Your task to perform on an android device: turn off picture-in-picture Image 0: 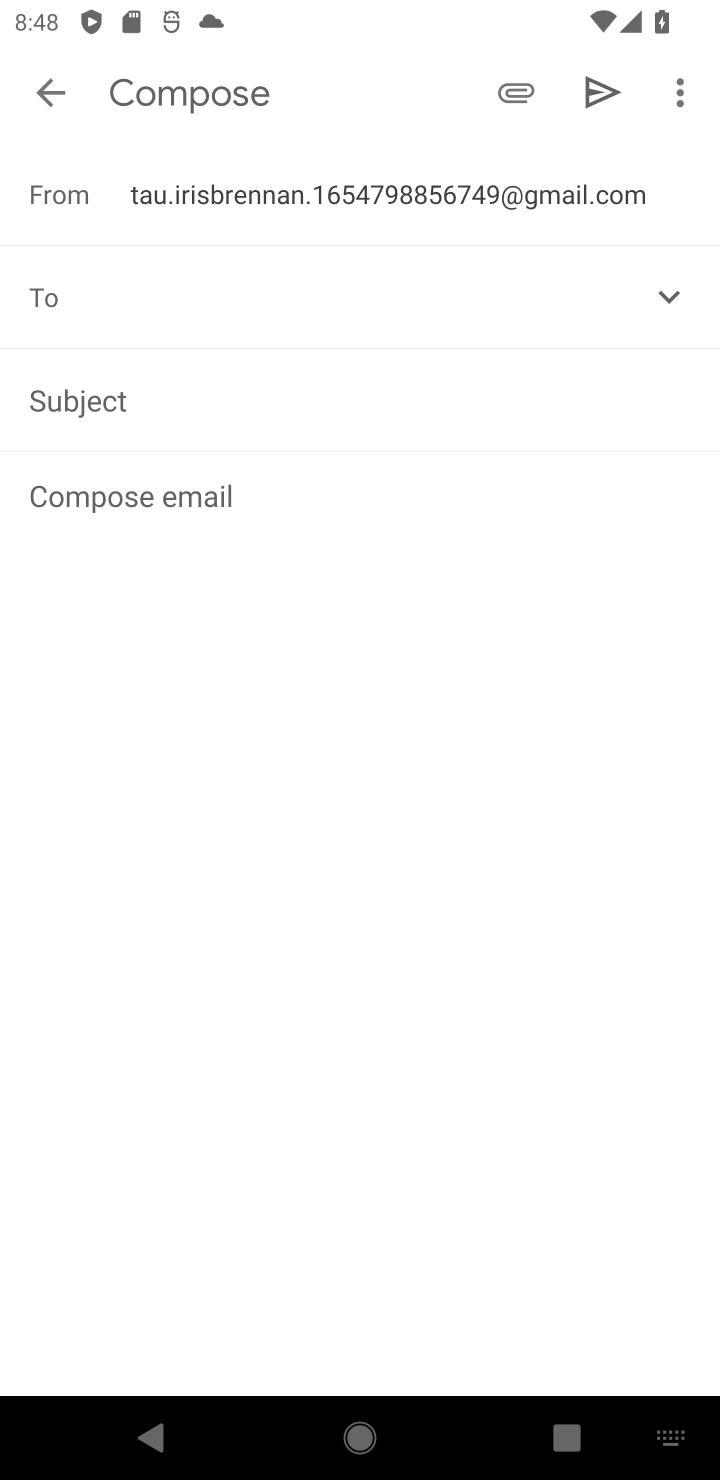
Step 0: press home button
Your task to perform on an android device: turn off picture-in-picture Image 1: 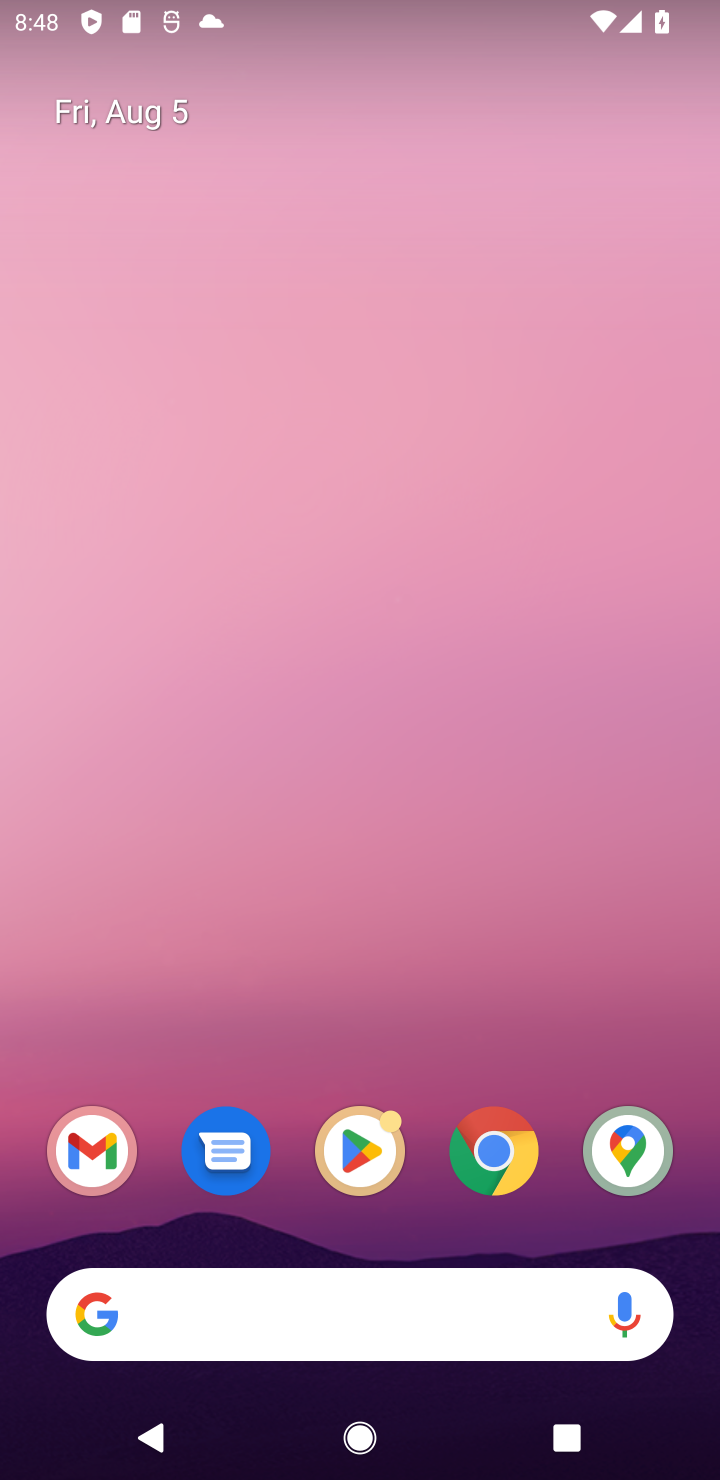
Step 1: drag from (429, 92) to (388, 174)
Your task to perform on an android device: turn off picture-in-picture Image 2: 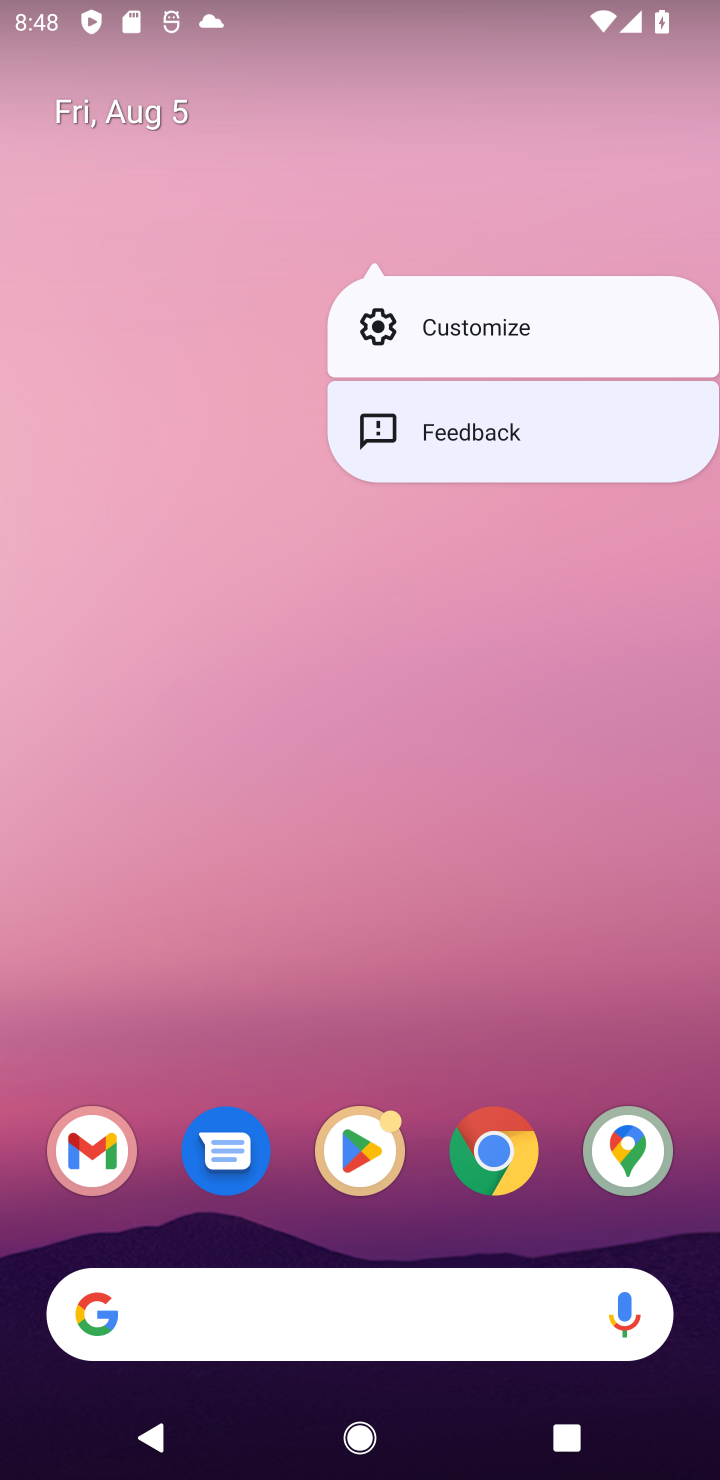
Step 2: drag from (304, 1079) to (465, 146)
Your task to perform on an android device: turn off picture-in-picture Image 3: 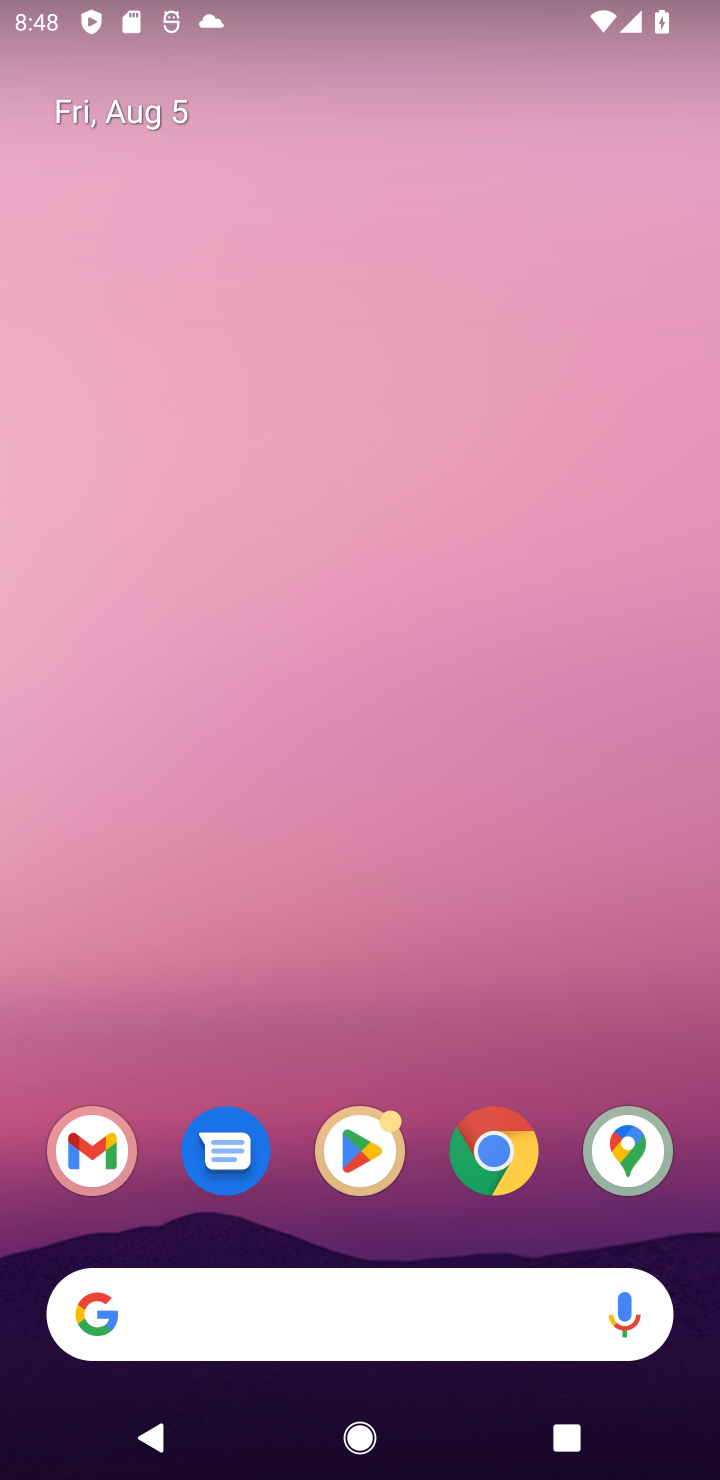
Step 3: drag from (317, 1138) to (462, 127)
Your task to perform on an android device: turn off picture-in-picture Image 4: 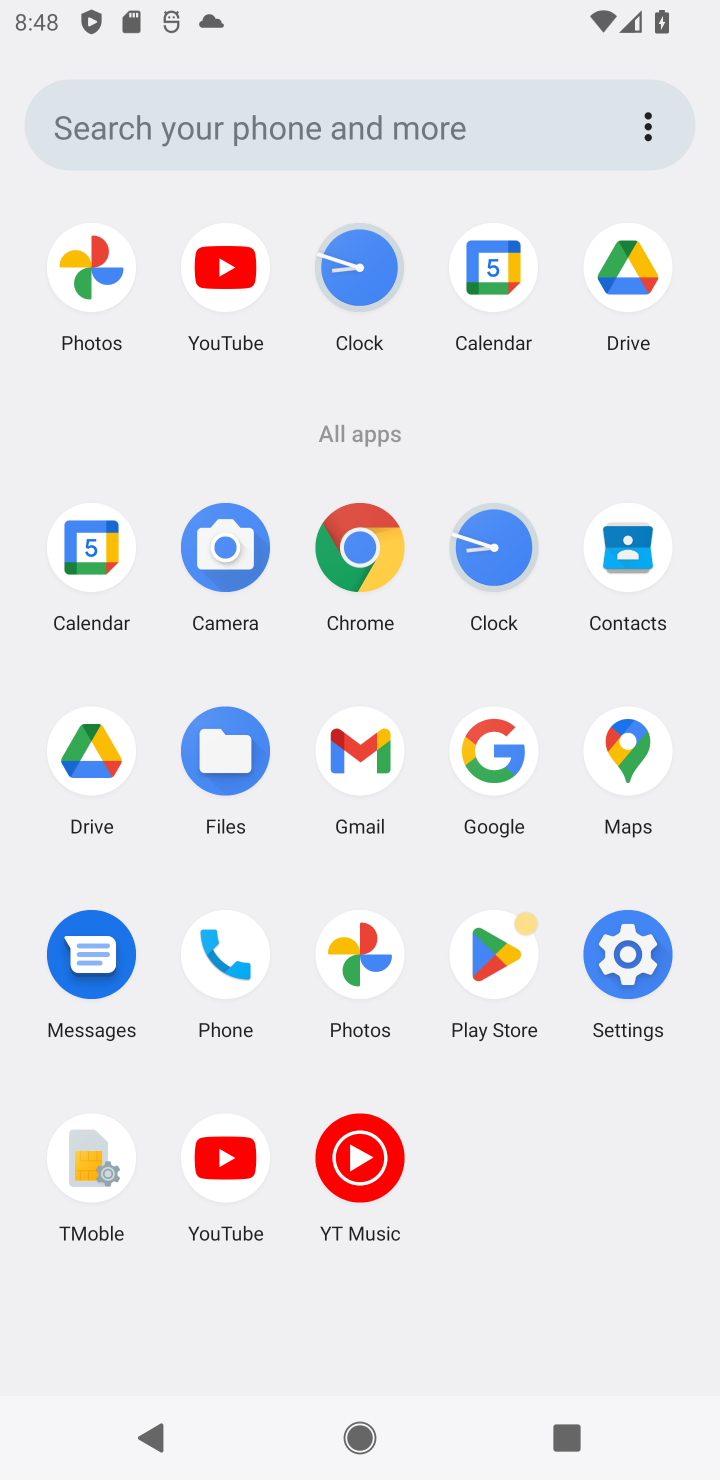
Step 4: click (620, 941)
Your task to perform on an android device: turn off picture-in-picture Image 5: 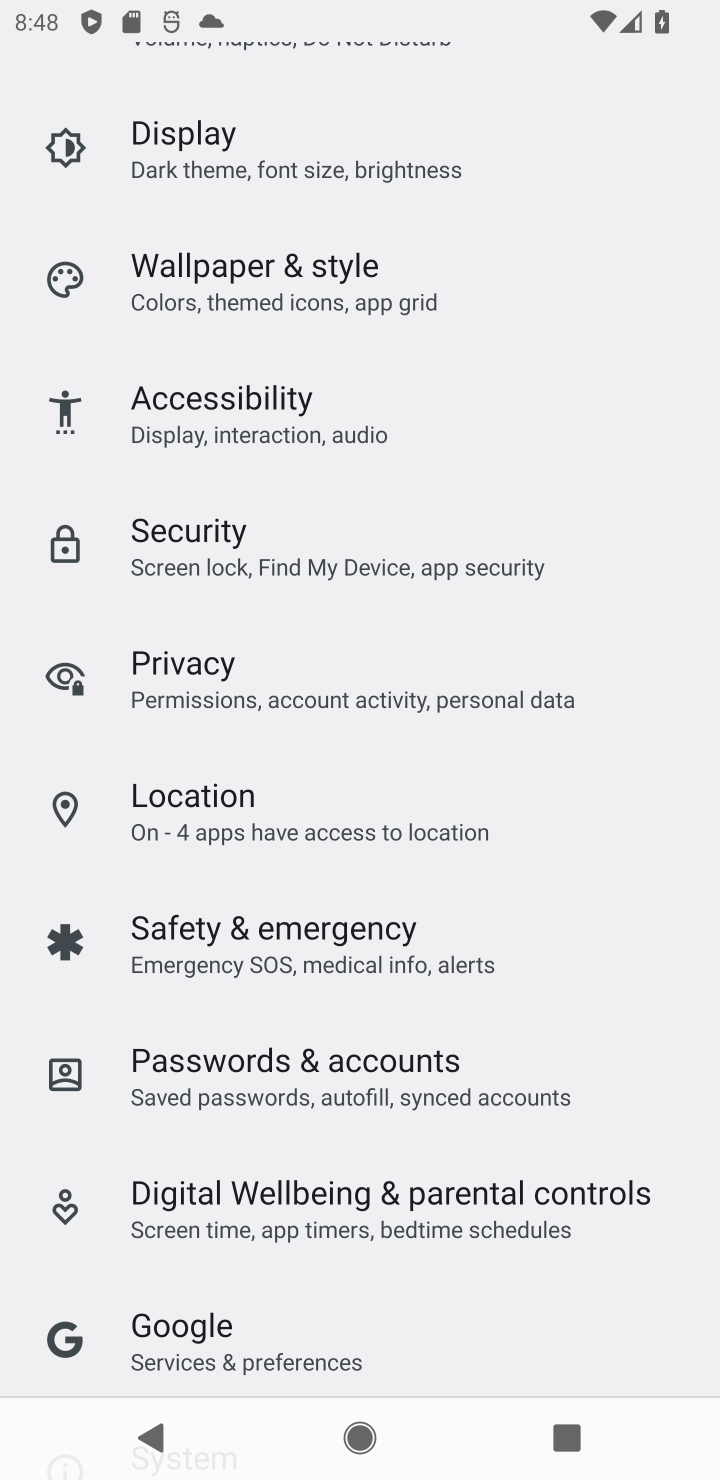
Step 5: drag from (404, 524) to (288, 1186)
Your task to perform on an android device: turn off picture-in-picture Image 6: 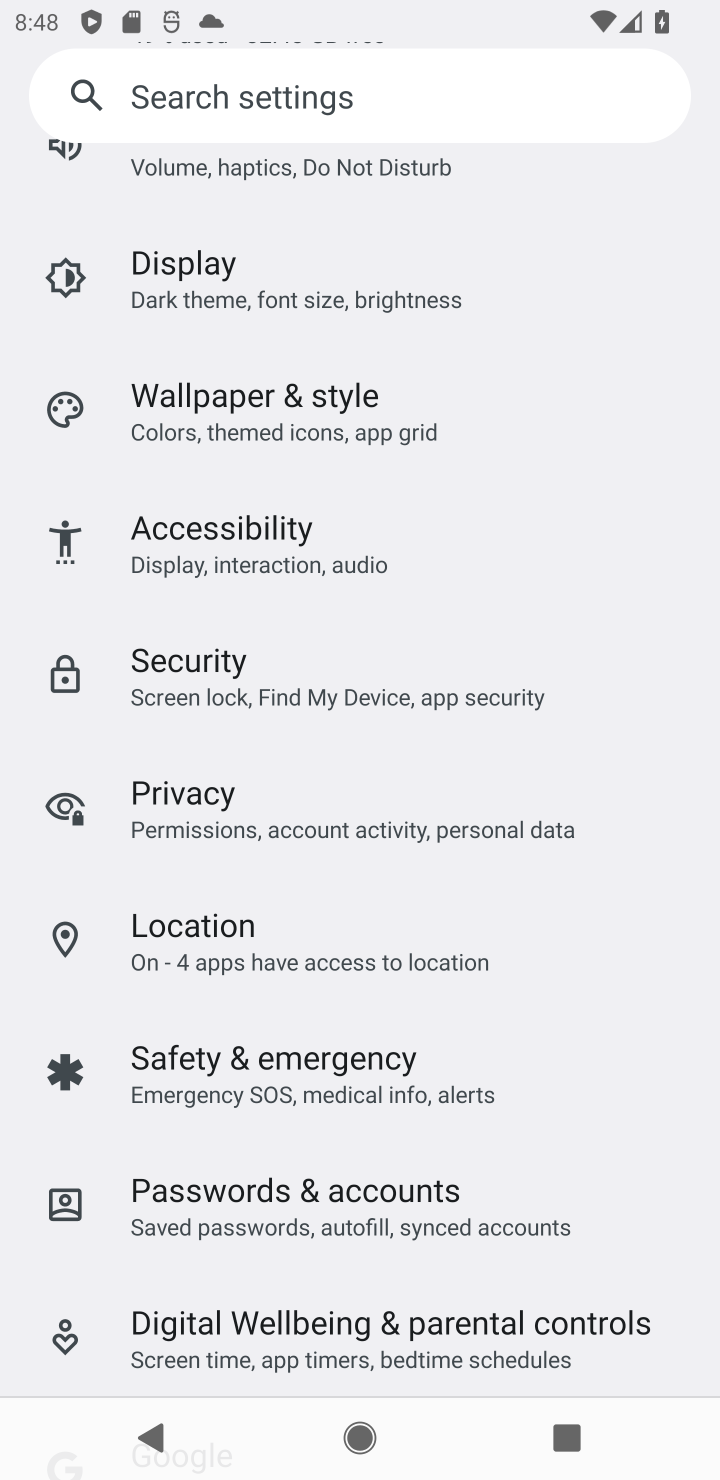
Step 6: drag from (402, 656) to (329, 1394)
Your task to perform on an android device: turn off picture-in-picture Image 7: 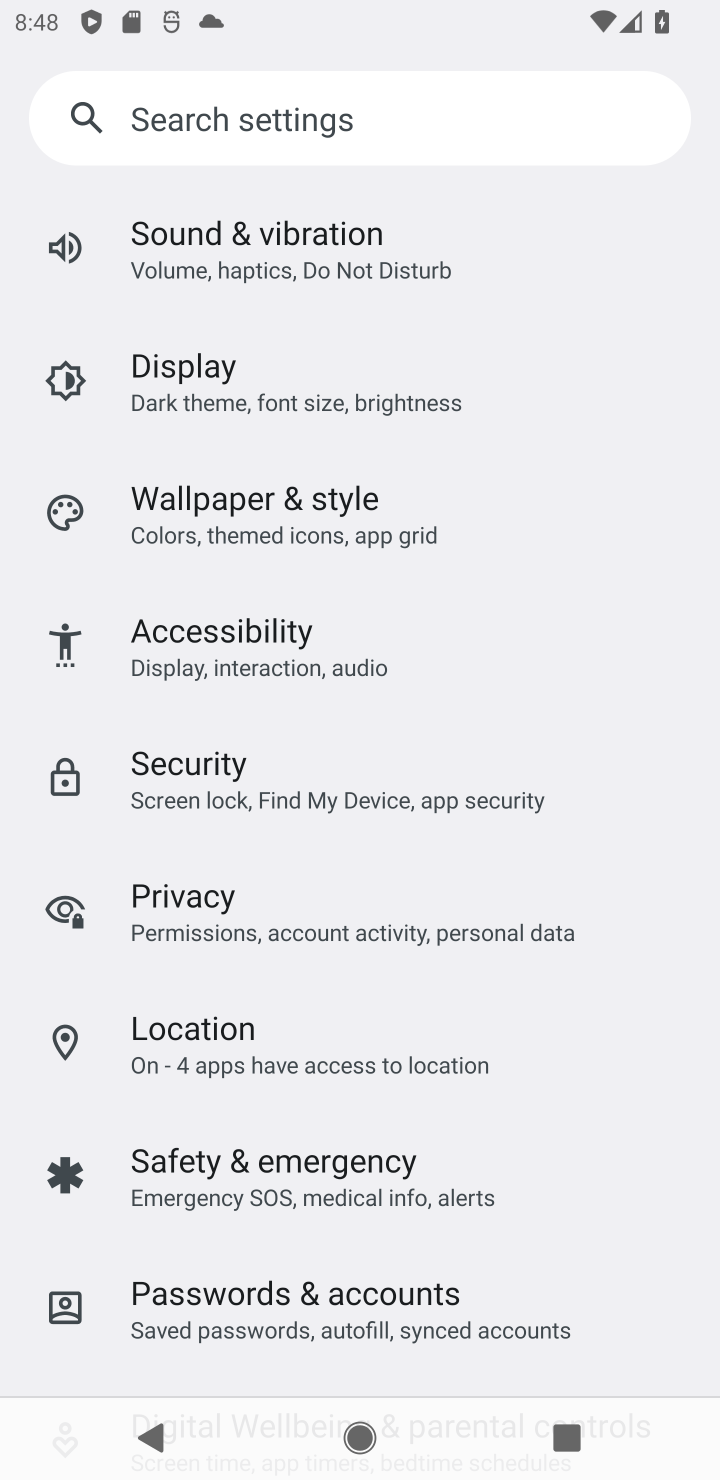
Step 7: drag from (337, 549) to (219, 1265)
Your task to perform on an android device: turn off picture-in-picture Image 8: 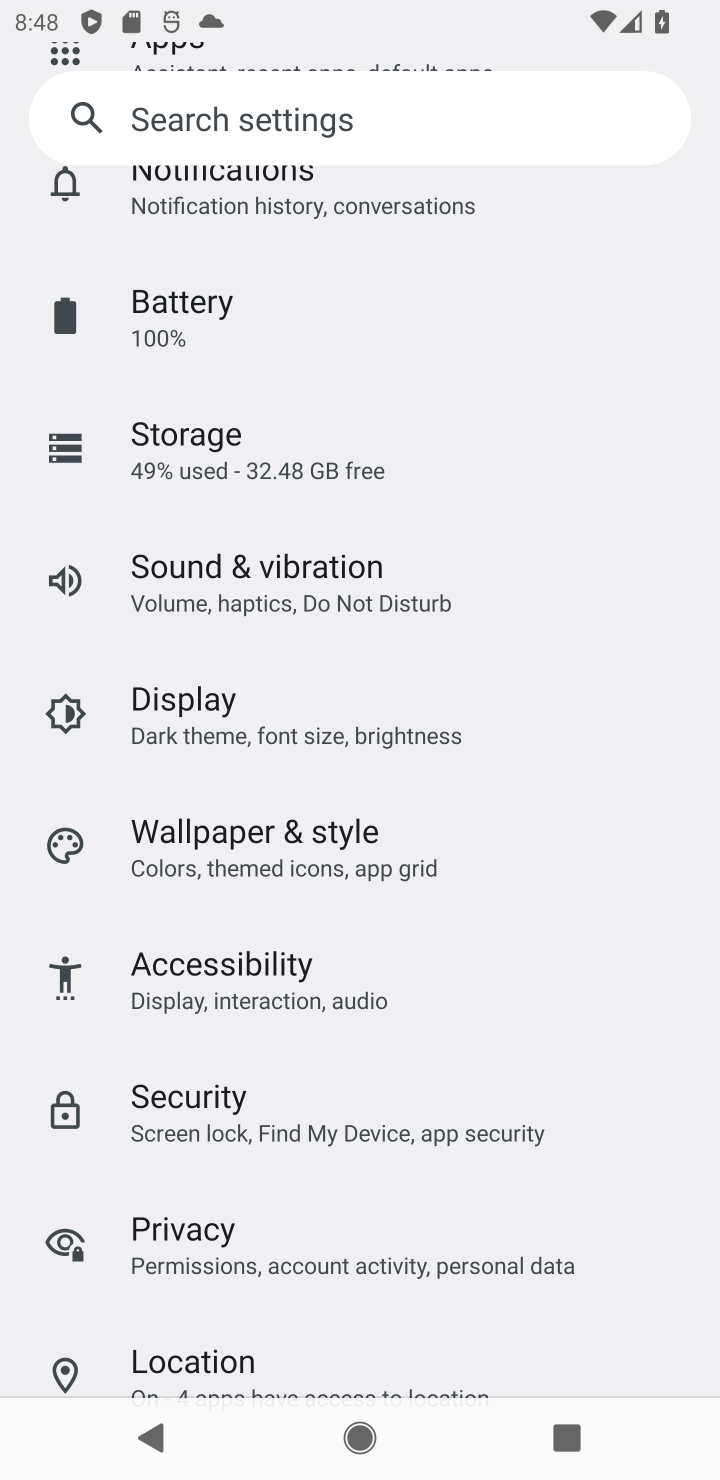
Step 8: drag from (261, 880) to (226, 1337)
Your task to perform on an android device: turn off picture-in-picture Image 9: 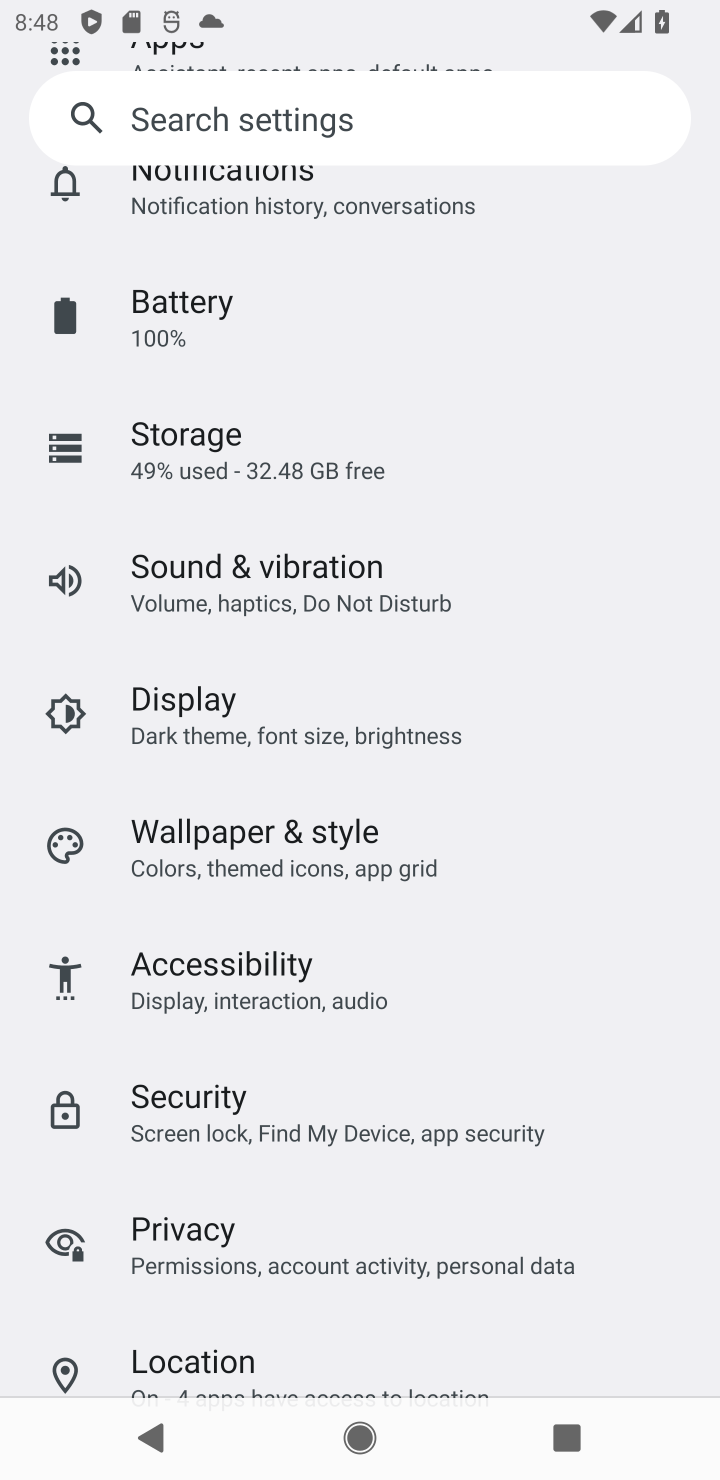
Step 9: click (231, 1288)
Your task to perform on an android device: turn off picture-in-picture Image 10: 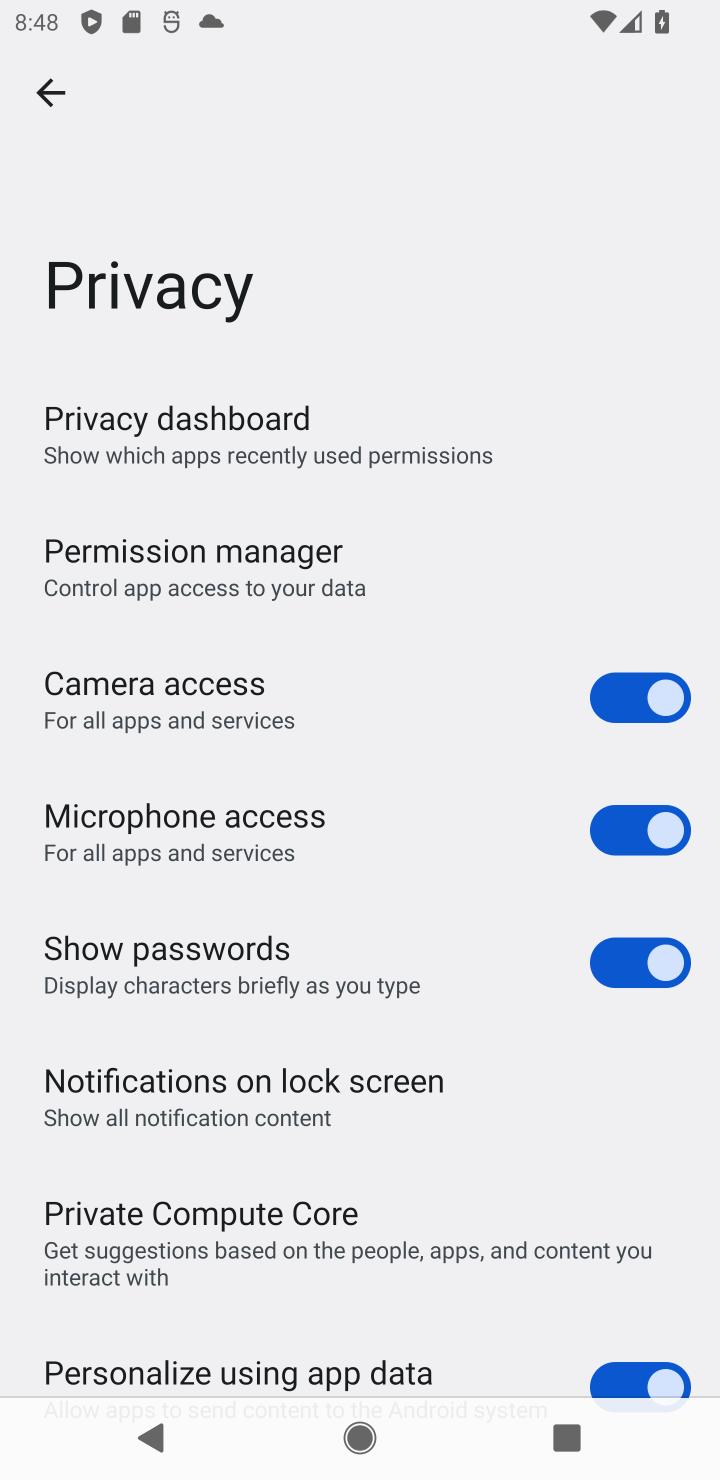
Step 10: click (48, 86)
Your task to perform on an android device: turn off picture-in-picture Image 11: 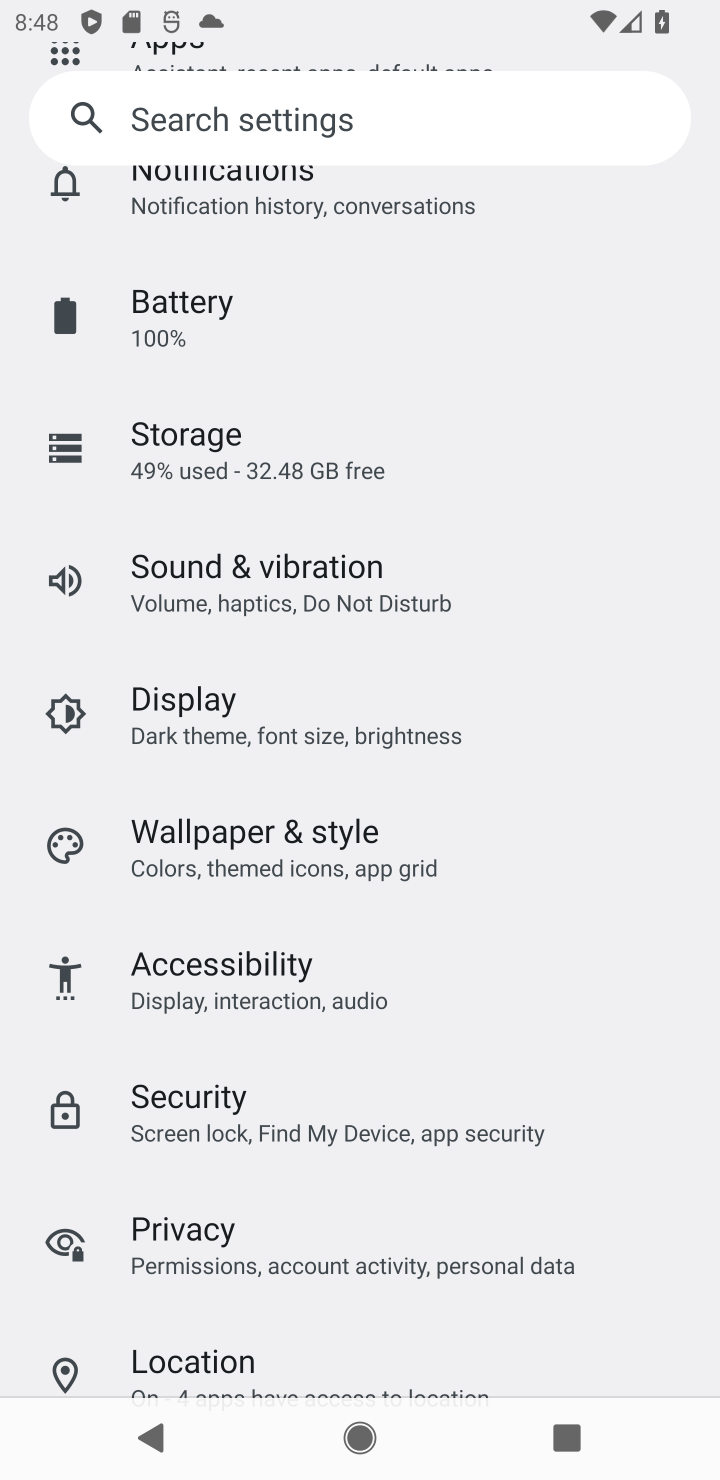
Step 11: drag from (294, 843) to (294, 1261)
Your task to perform on an android device: turn off picture-in-picture Image 12: 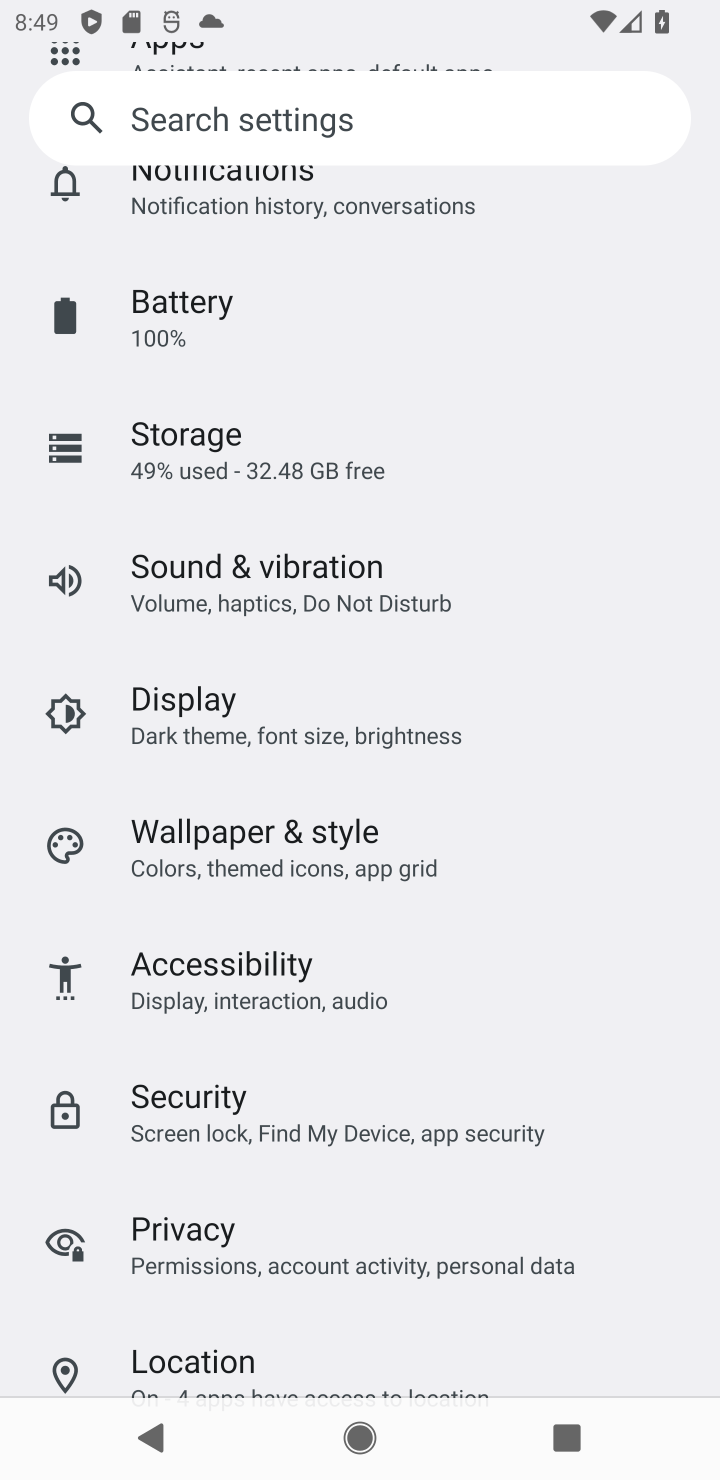
Step 12: drag from (354, 1226) to (349, 1426)
Your task to perform on an android device: turn off picture-in-picture Image 13: 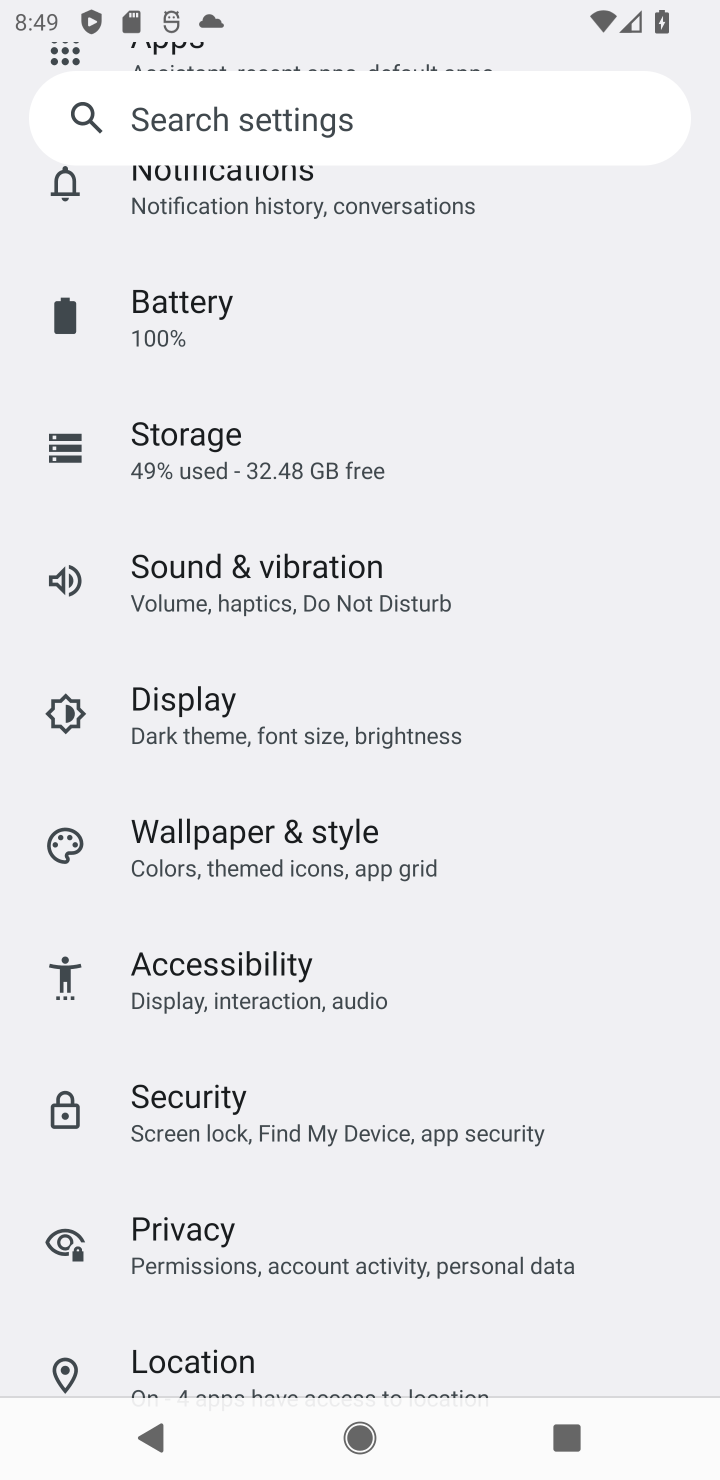
Step 13: click (315, 1279)
Your task to perform on an android device: turn off picture-in-picture Image 14: 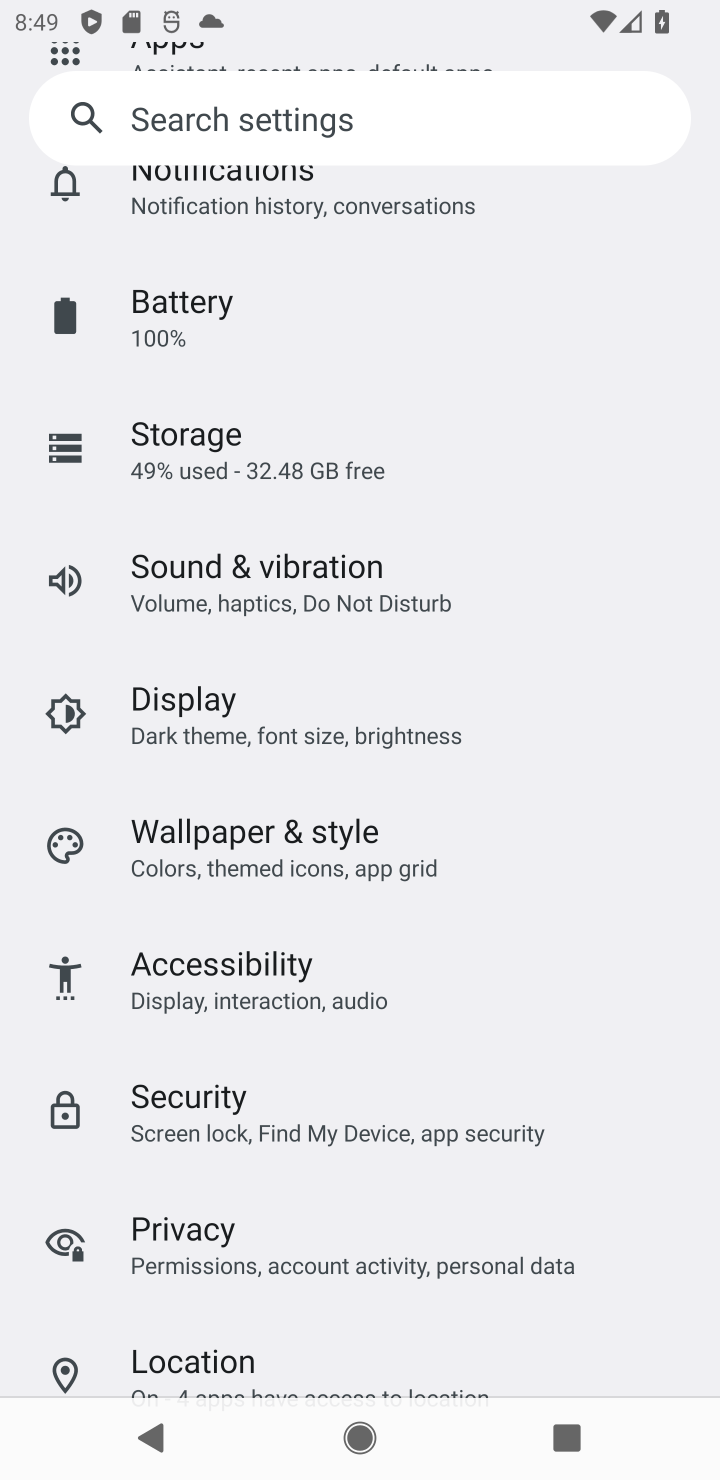
Step 14: drag from (368, 416) to (319, 1391)
Your task to perform on an android device: turn off picture-in-picture Image 15: 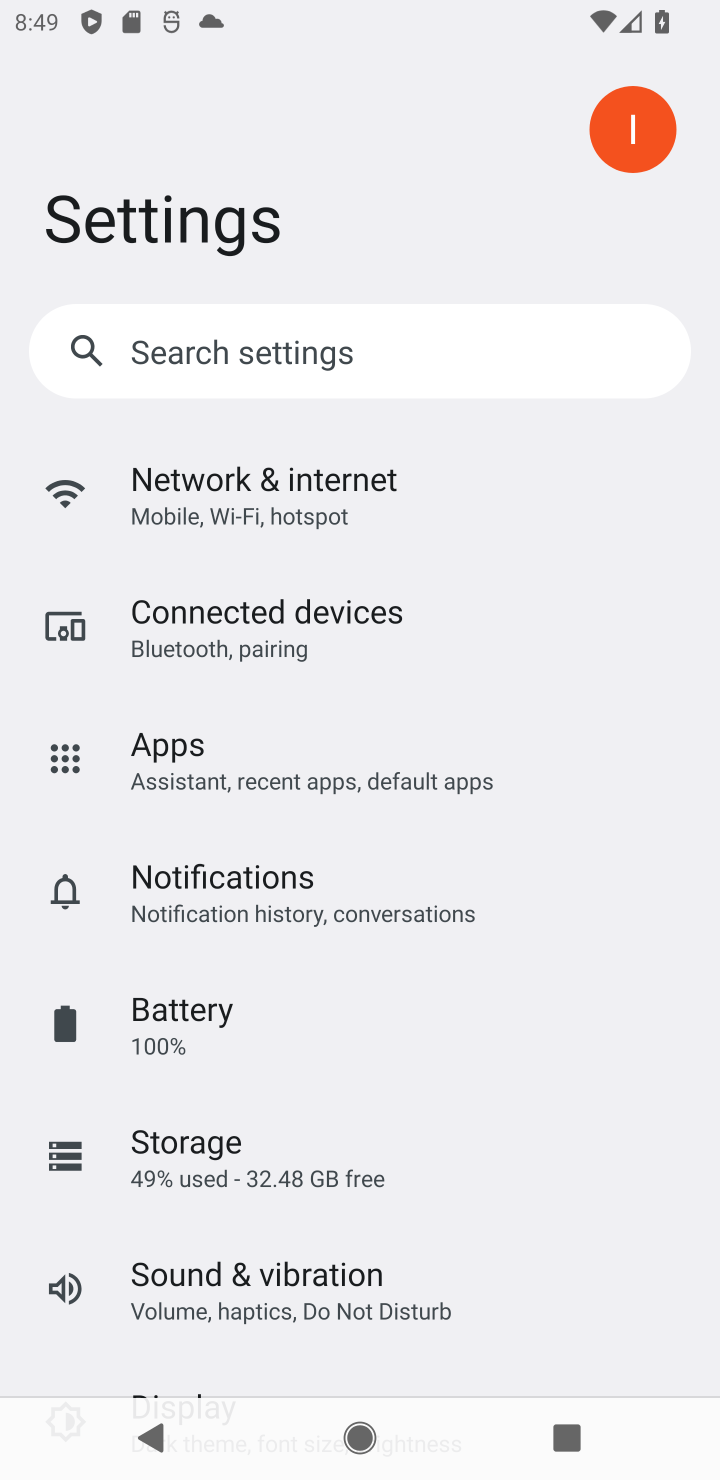
Step 15: drag from (284, 978) to (247, 1053)
Your task to perform on an android device: turn off picture-in-picture Image 16: 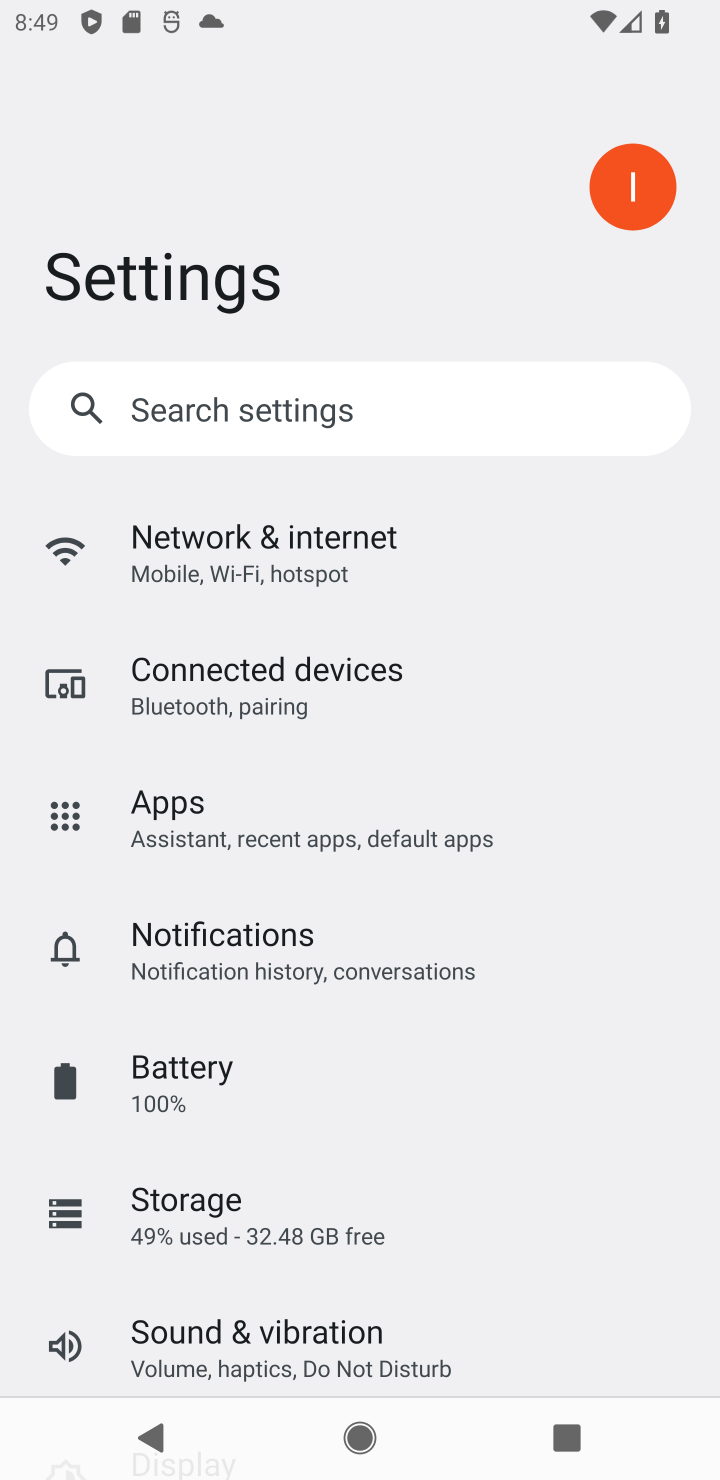
Step 16: click (215, 794)
Your task to perform on an android device: turn off picture-in-picture Image 17: 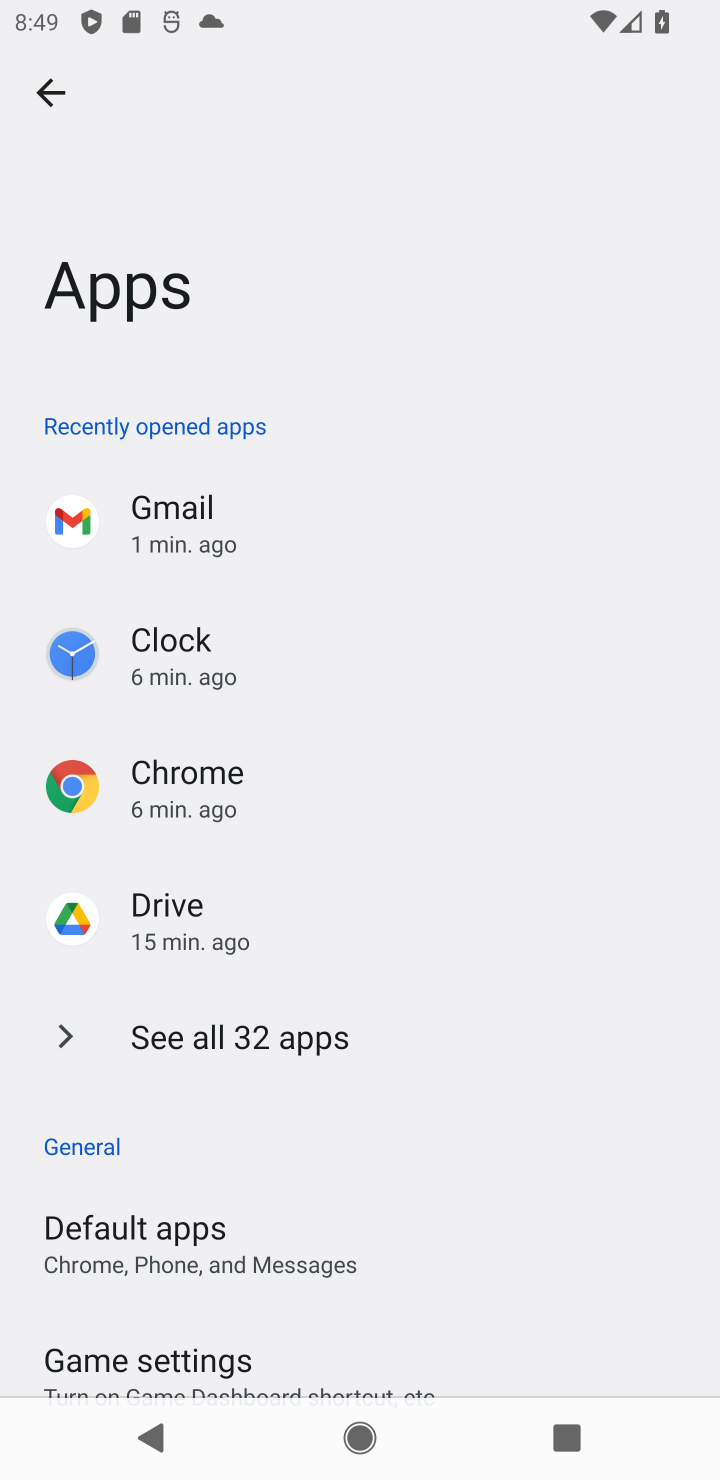
Step 17: drag from (310, 1249) to (377, 605)
Your task to perform on an android device: turn off picture-in-picture Image 18: 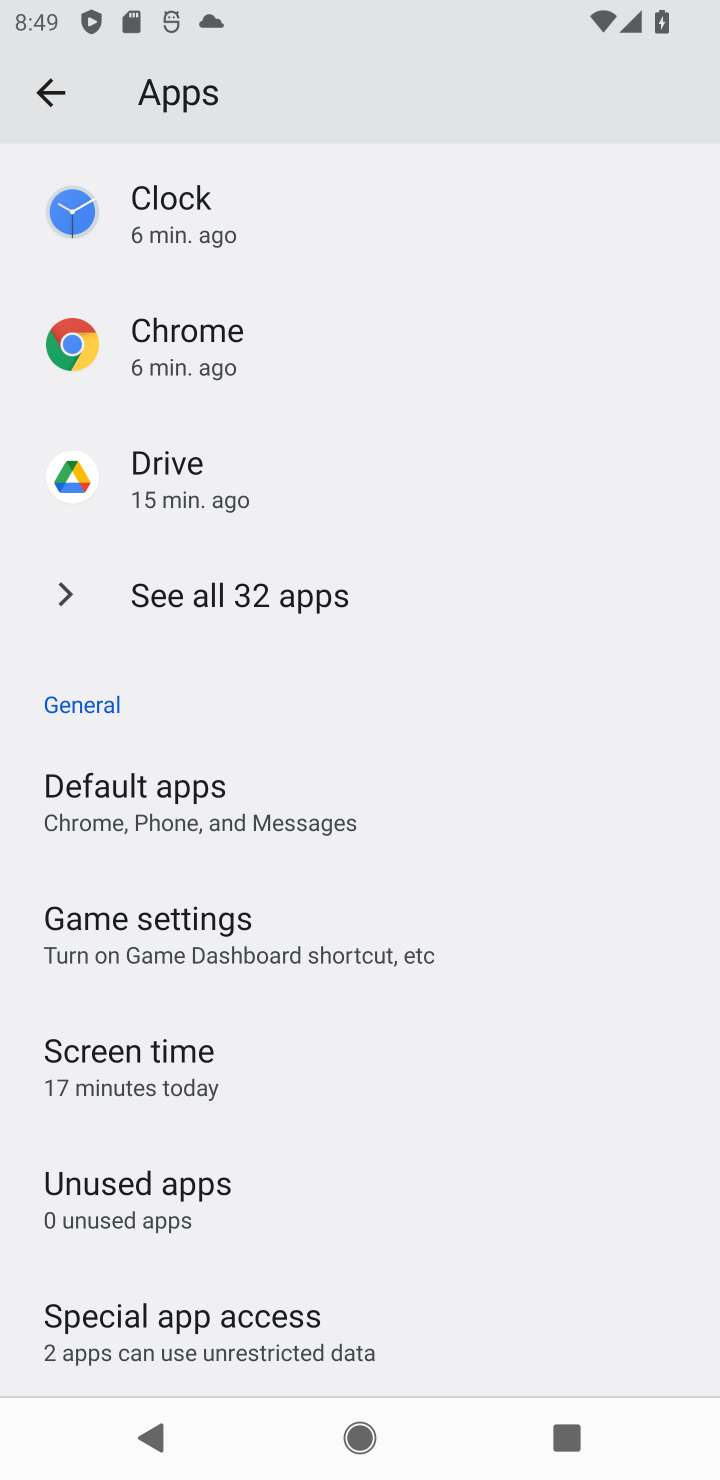
Step 18: drag from (284, 1074) to (371, 636)
Your task to perform on an android device: turn off picture-in-picture Image 19: 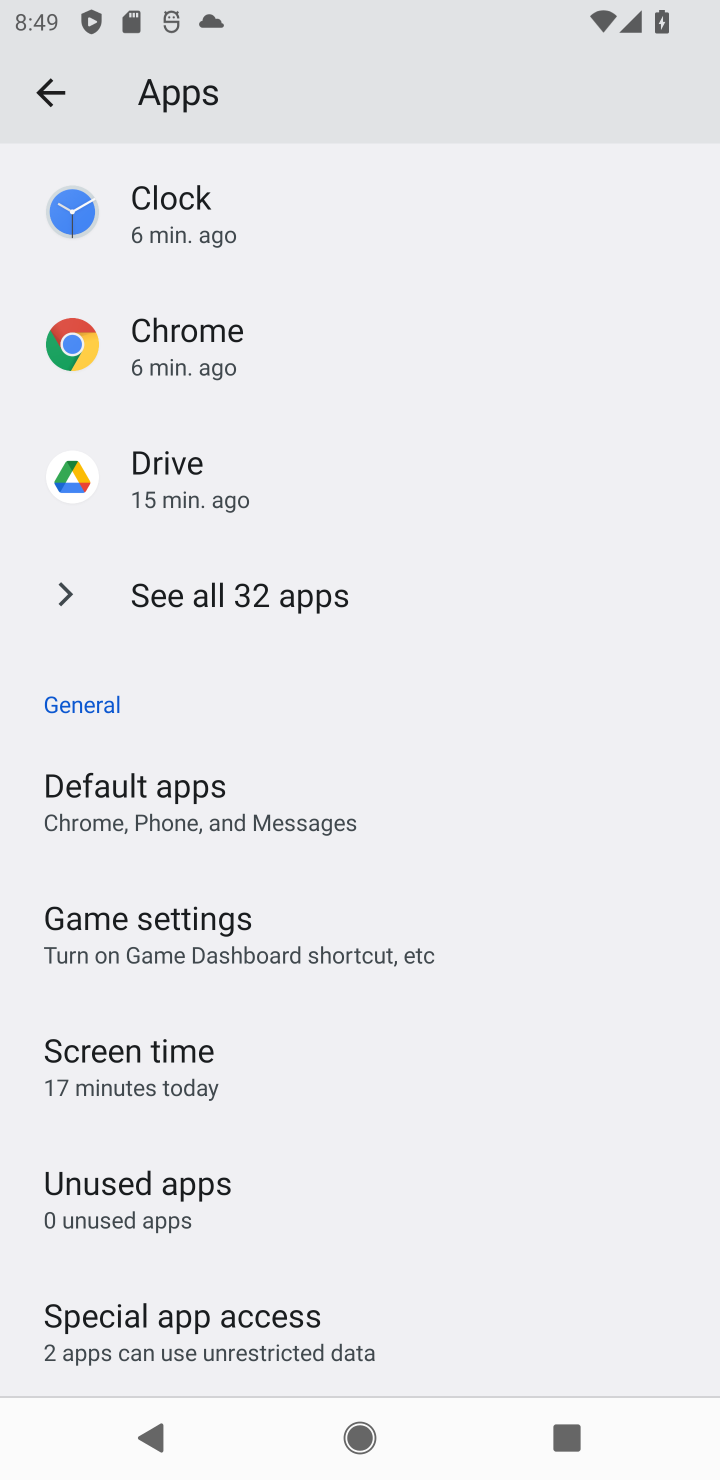
Step 19: click (210, 1322)
Your task to perform on an android device: turn off picture-in-picture Image 20: 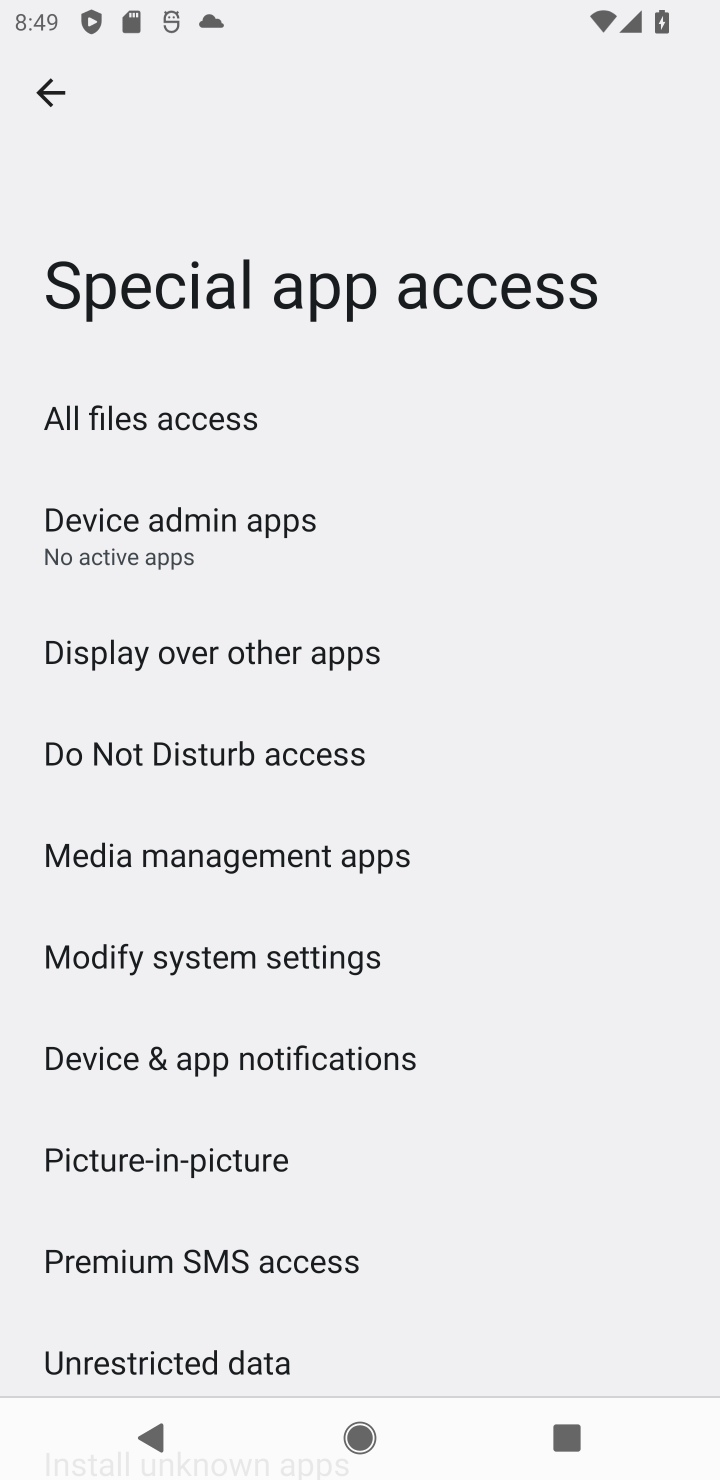
Step 20: click (247, 1161)
Your task to perform on an android device: turn off picture-in-picture Image 21: 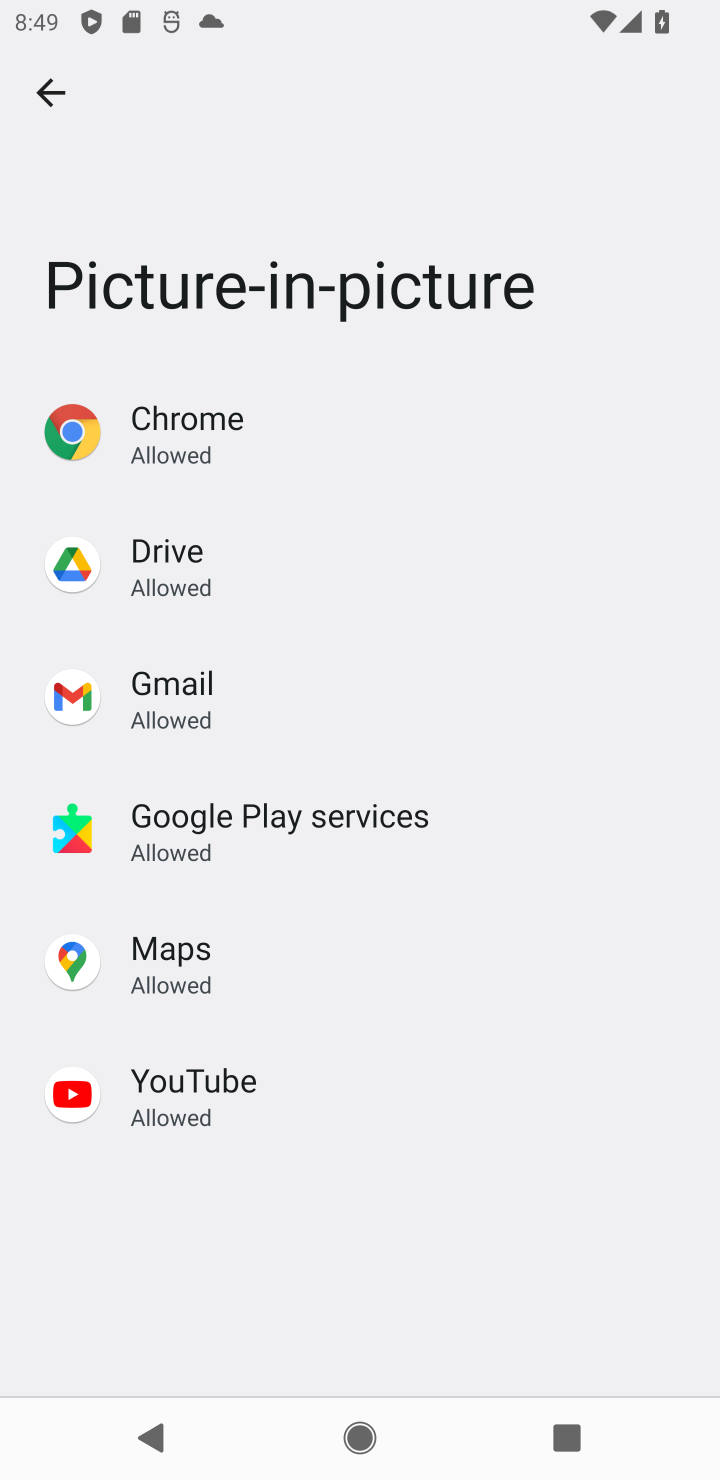
Step 21: click (213, 451)
Your task to perform on an android device: turn off picture-in-picture Image 22: 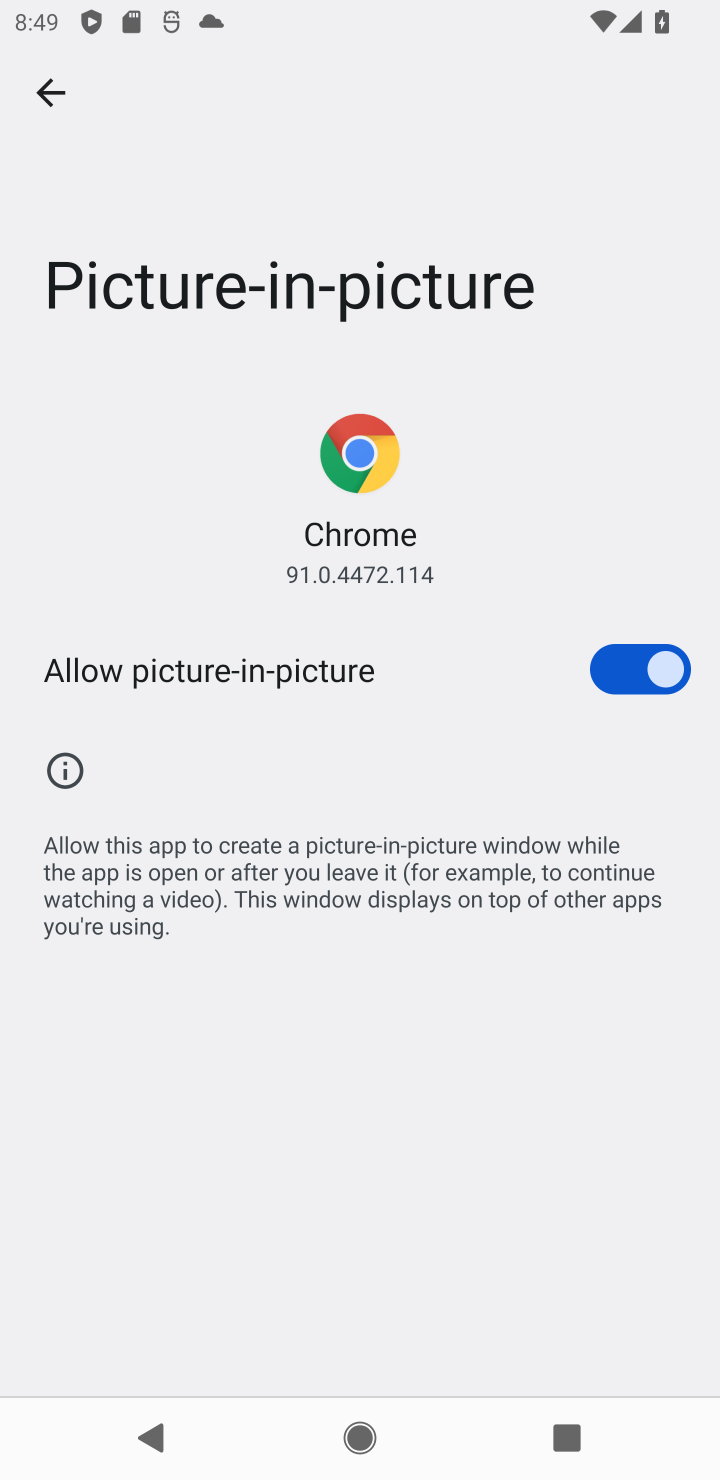
Step 22: click (638, 677)
Your task to perform on an android device: turn off picture-in-picture Image 23: 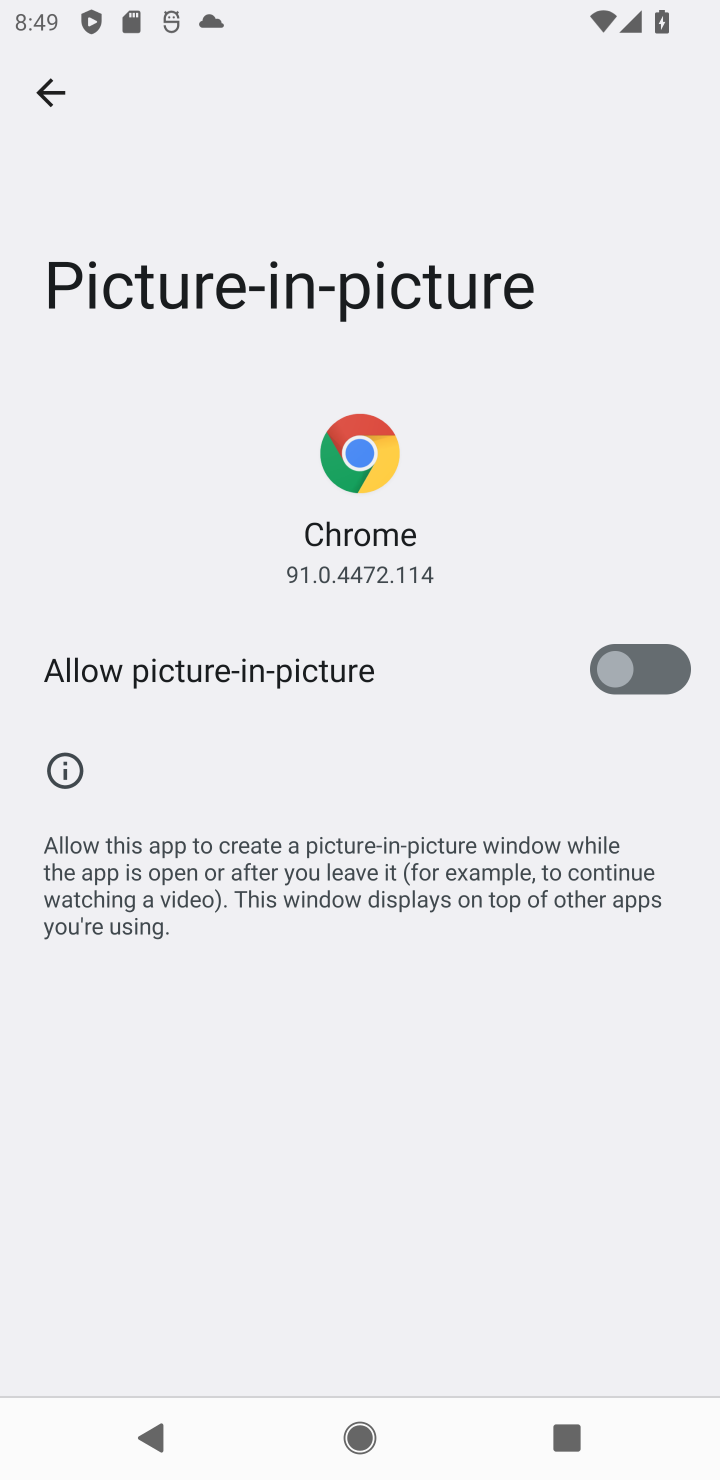
Step 23: task complete